Your task to perform on an android device: turn vacation reply on in the gmail app Image 0: 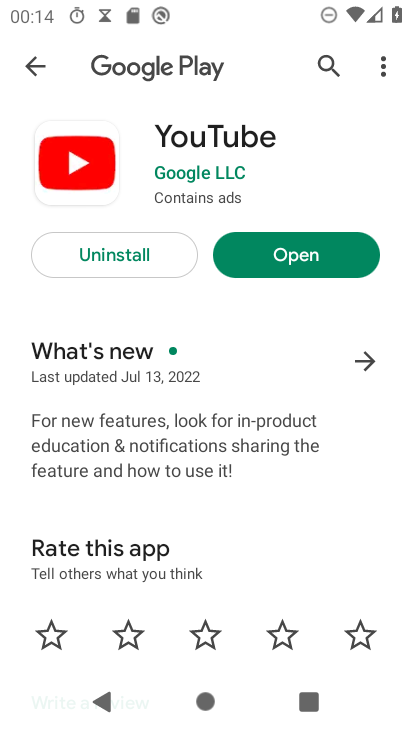
Step 0: press home button
Your task to perform on an android device: turn vacation reply on in the gmail app Image 1: 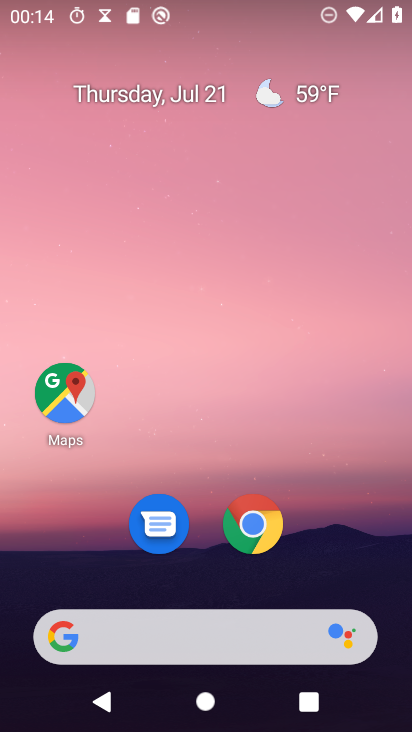
Step 1: drag from (191, 628) to (282, 204)
Your task to perform on an android device: turn vacation reply on in the gmail app Image 2: 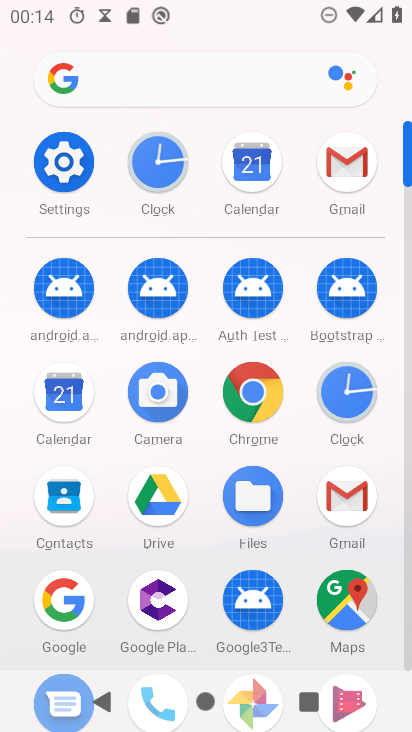
Step 2: click (352, 170)
Your task to perform on an android device: turn vacation reply on in the gmail app Image 3: 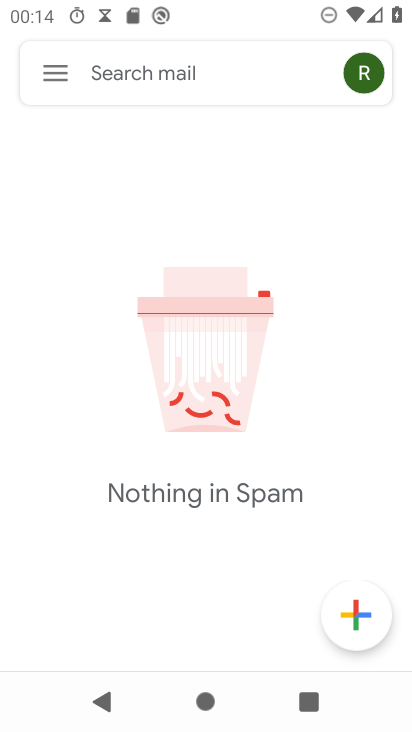
Step 3: click (56, 73)
Your task to perform on an android device: turn vacation reply on in the gmail app Image 4: 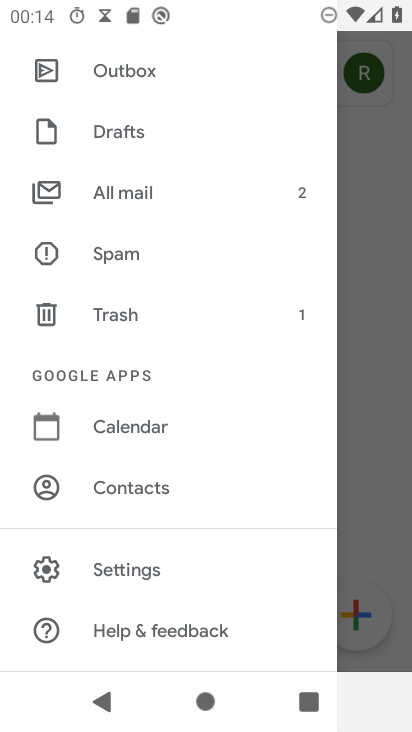
Step 4: click (146, 565)
Your task to perform on an android device: turn vacation reply on in the gmail app Image 5: 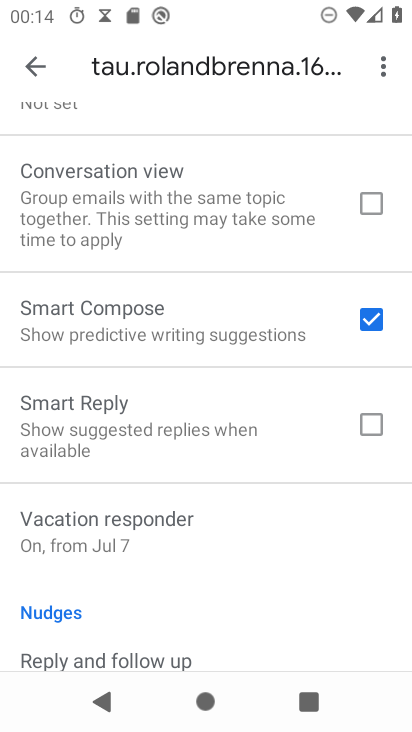
Step 5: click (161, 521)
Your task to perform on an android device: turn vacation reply on in the gmail app Image 6: 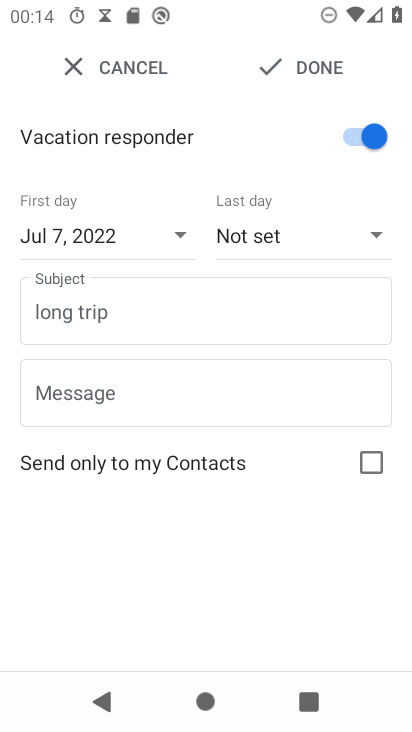
Step 6: task complete